Your task to perform on an android device: Go to calendar. Show me events next week Image 0: 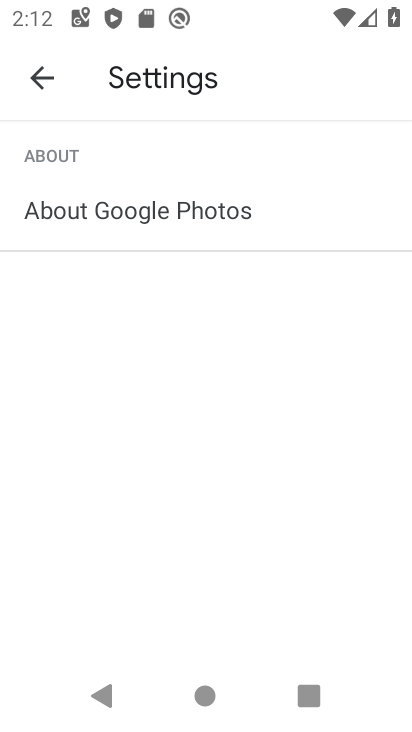
Step 0: press home button
Your task to perform on an android device: Go to calendar. Show me events next week Image 1: 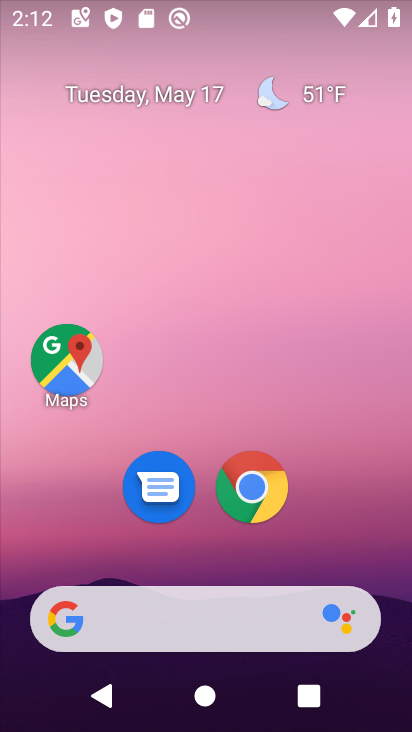
Step 1: drag from (86, 595) to (243, 137)
Your task to perform on an android device: Go to calendar. Show me events next week Image 2: 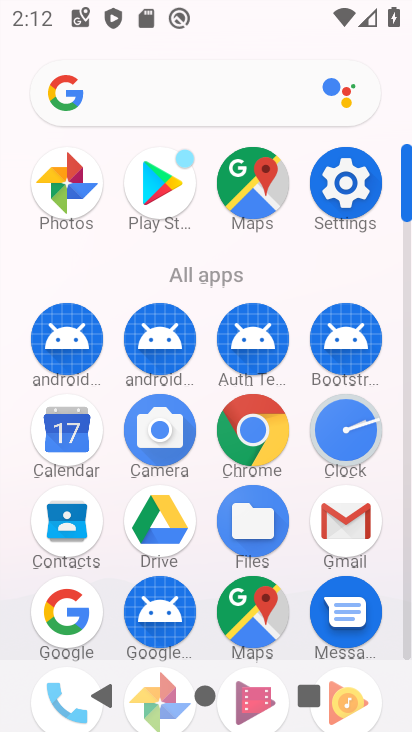
Step 2: click (92, 450)
Your task to perform on an android device: Go to calendar. Show me events next week Image 3: 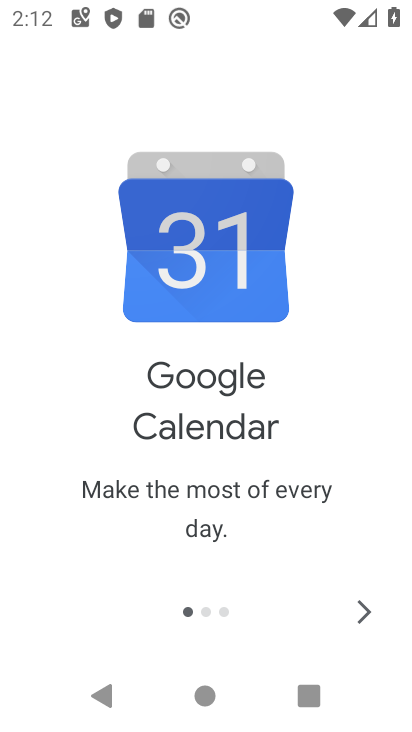
Step 3: click (375, 635)
Your task to perform on an android device: Go to calendar. Show me events next week Image 4: 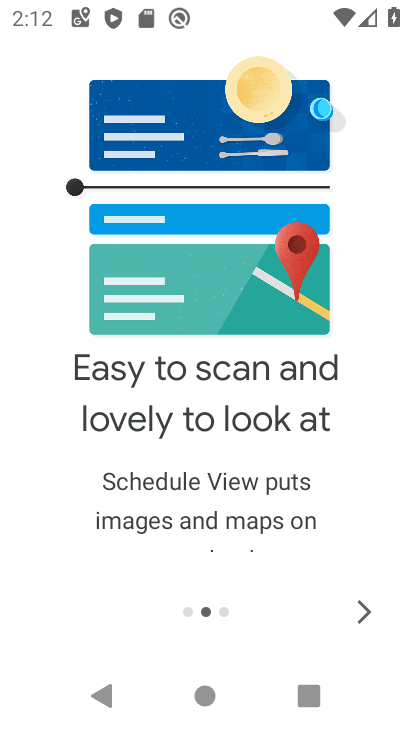
Step 4: click (368, 630)
Your task to perform on an android device: Go to calendar. Show me events next week Image 5: 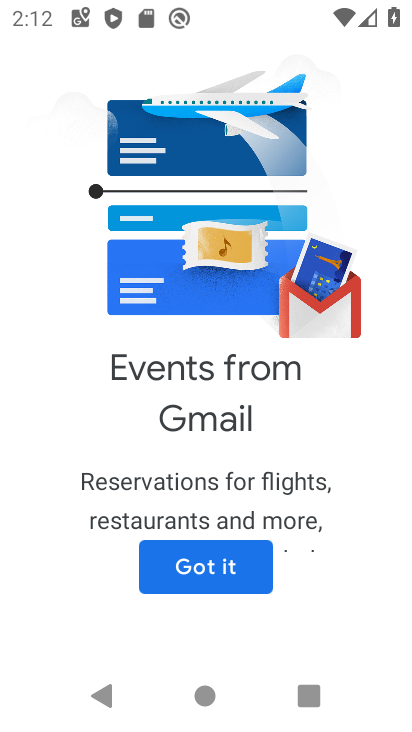
Step 5: click (217, 563)
Your task to perform on an android device: Go to calendar. Show me events next week Image 6: 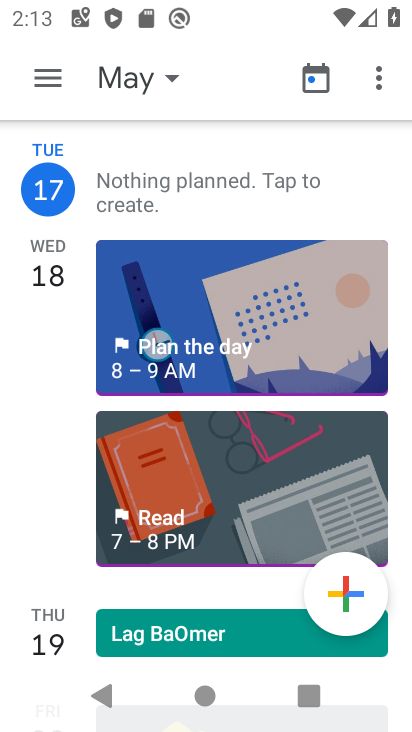
Step 6: click (147, 94)
Your task to perform on an android device: Go to calendar. Show me events next week Image 7: 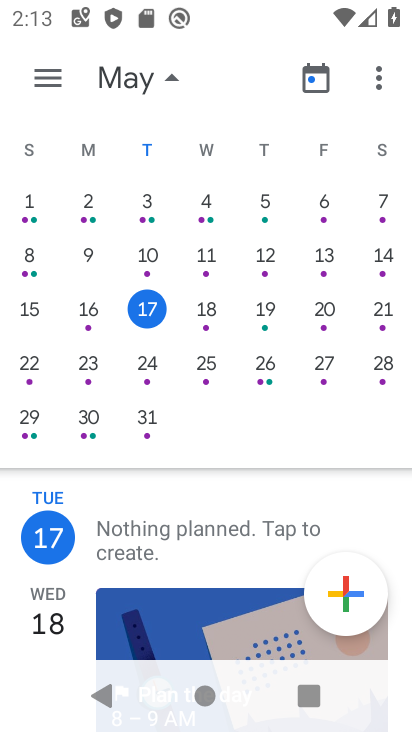
Step 7: click (36, 368)
Your task to perform on an android device: Go to calendar. Show me events next week Image 8: 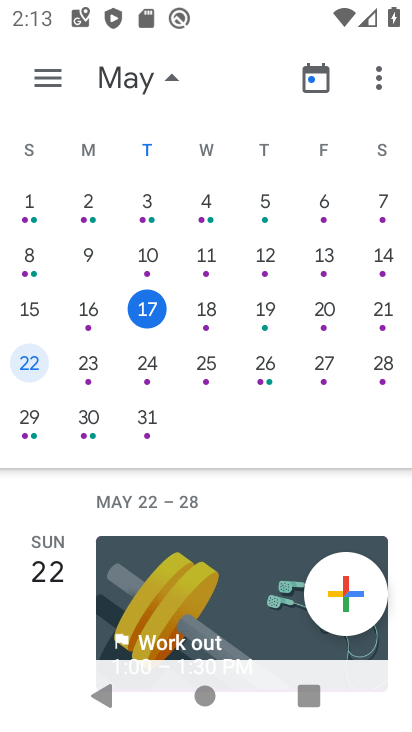
Step 8: click (165, 92)
Your task to perform on an android device: Go to calendar. Show me events next week Image 9: 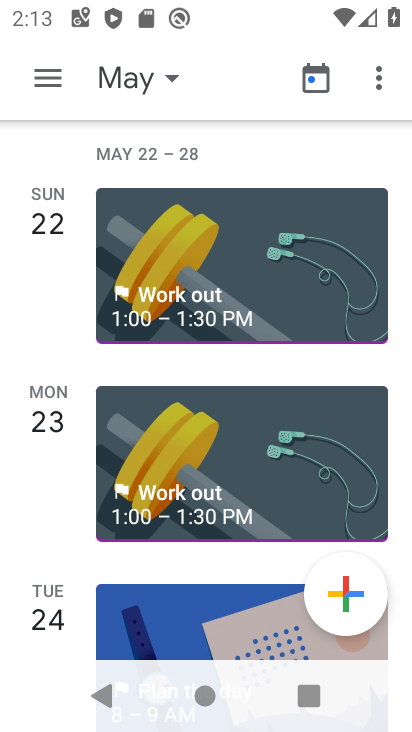
Step 9: drag from (162, 501) to (213, 200)
Your task to perform on an android device: Go to calendar. Show me events next week Image 10: 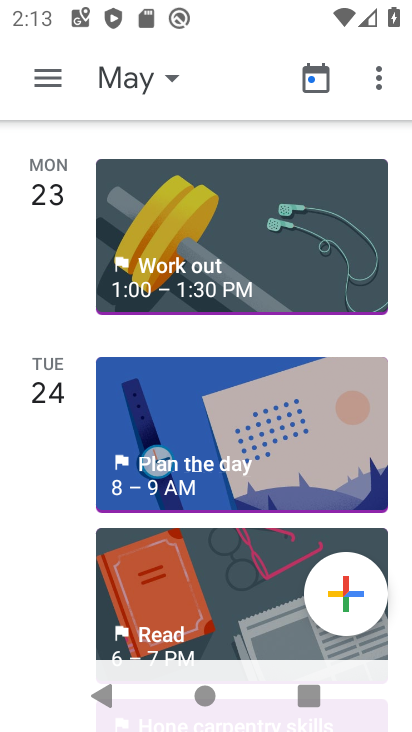
Step 10: click (51, 88)
Your task to perform on an android device: Go to calendar. Show me events next week Image 11: 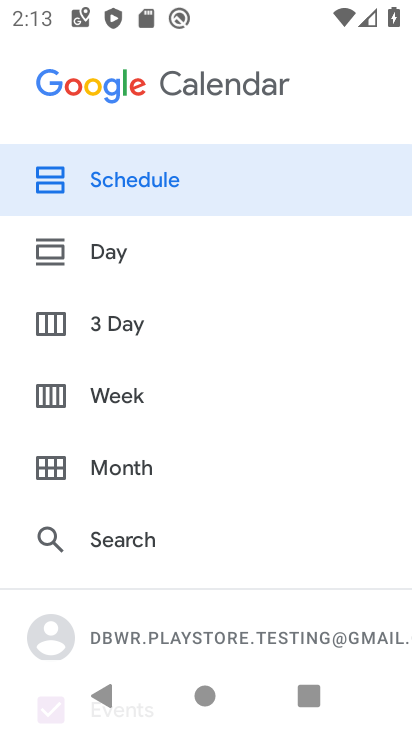
Step 11: drag from (165, 579) to (229, 279)
Your task to perform on an android device: Go to calendar. Show me events next week Image 12: 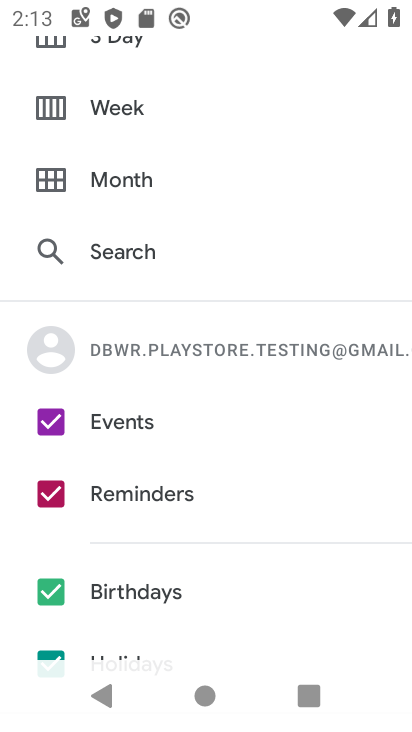
Step 12: click (130, 492)
Your task to perform on an android device: Go to calendar. Show me events next week Image 13: 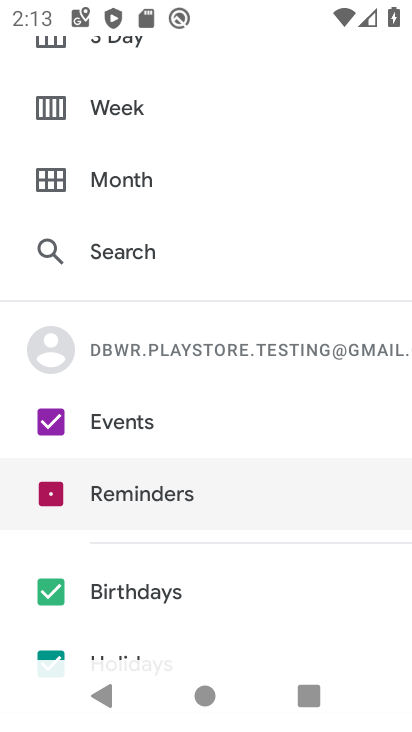
Step 13: click (140, 587)
Your task to perform on an android device: Go to calendar. Show me events next week Image 14: 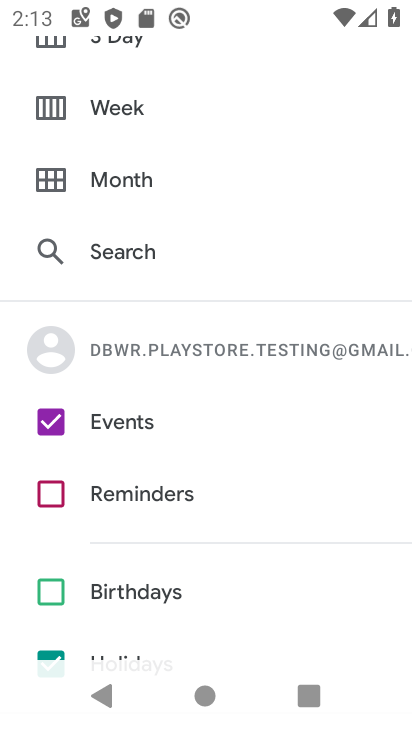
Step 14: drag from (115, 564) to (177, 388)
Your task to perform on an android device: Go to calendar. Show me events next week Image 15: 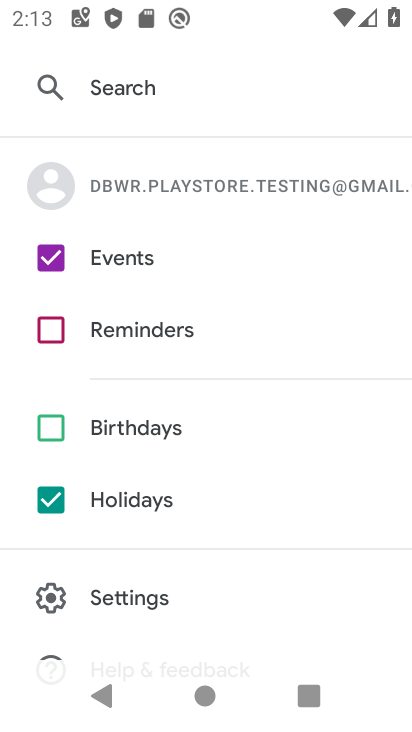
Step 15: click (59, 506)
Your task to perform on an android device: Go to calendar. Show me events next week Image 16: 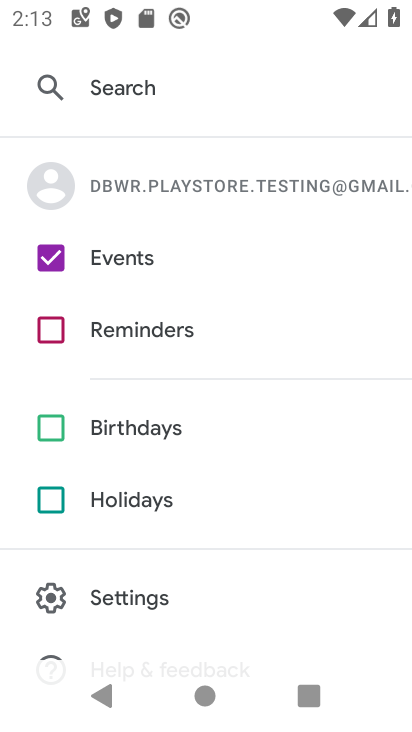
Step 16: task complete